Your task to perform on an android device: Show me productivity apps on the Play Store Image 0: 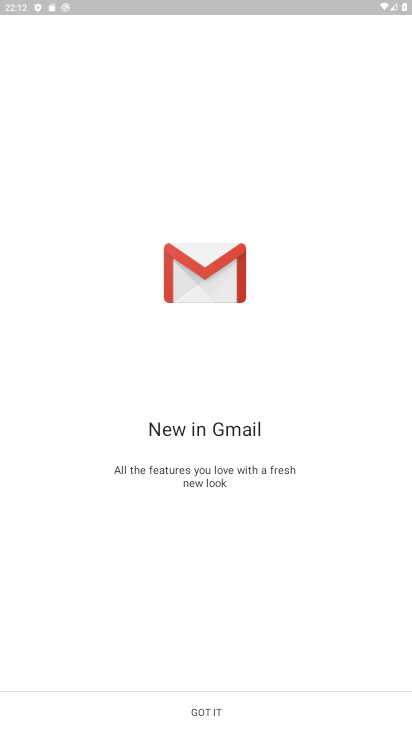
Step 0: press home button
Your task to perform on an android device: Show me productivity apps on the Play Store Image 1: 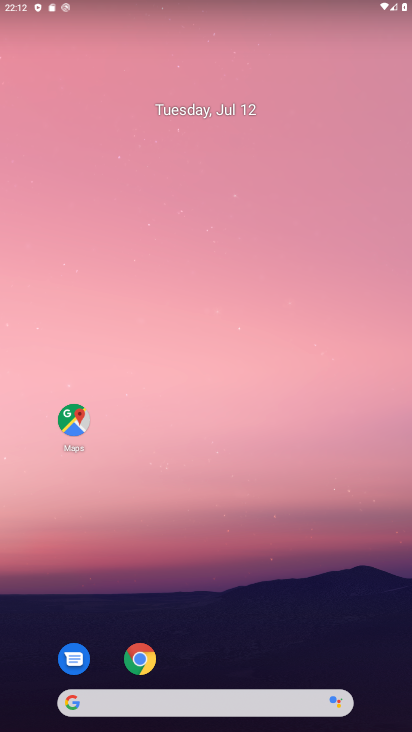
Step 1: drag from (209, 613) to (269, 256)
Your task to perform on an android device: Show me productivity apps on the Play Store Image 2: 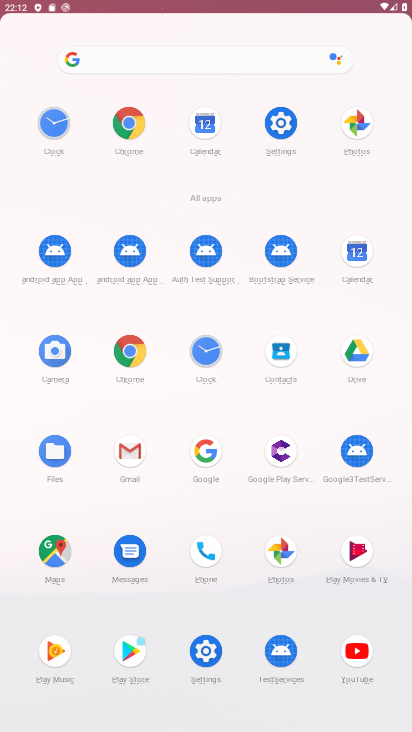
Step 2: drag from (191, 647) to (202, 288)
Your task to perform on an android device: Show me productivity apps on the Play Store Image 3: 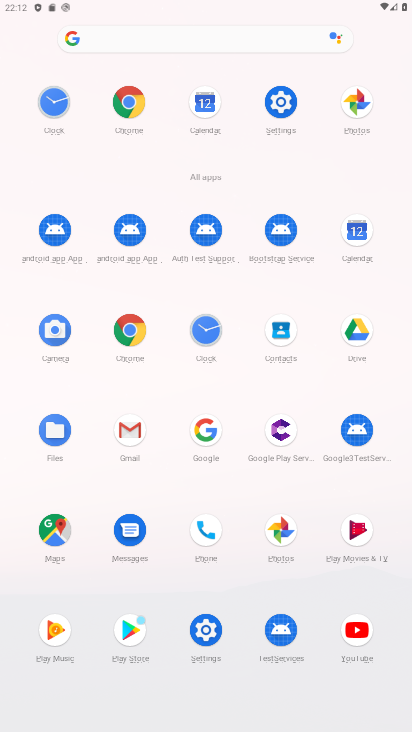
Step 3: click (130, 625)
Your task to perform on an android device: Show me productivity apps on the Play Store Image 4: 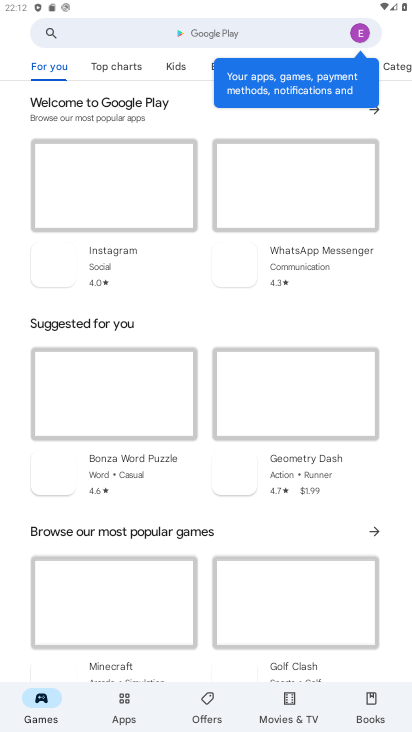
Step 4: click (126, 692)
Your task to perform on an android device: Show me productivity apps on the Play Store Image 5: 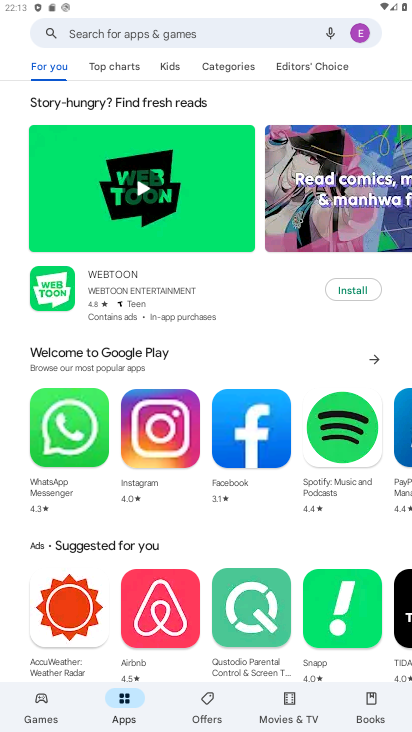
Step 5: task complete